Your task to perform on an android device: Open calendar and show me the third week of next month Image 0: 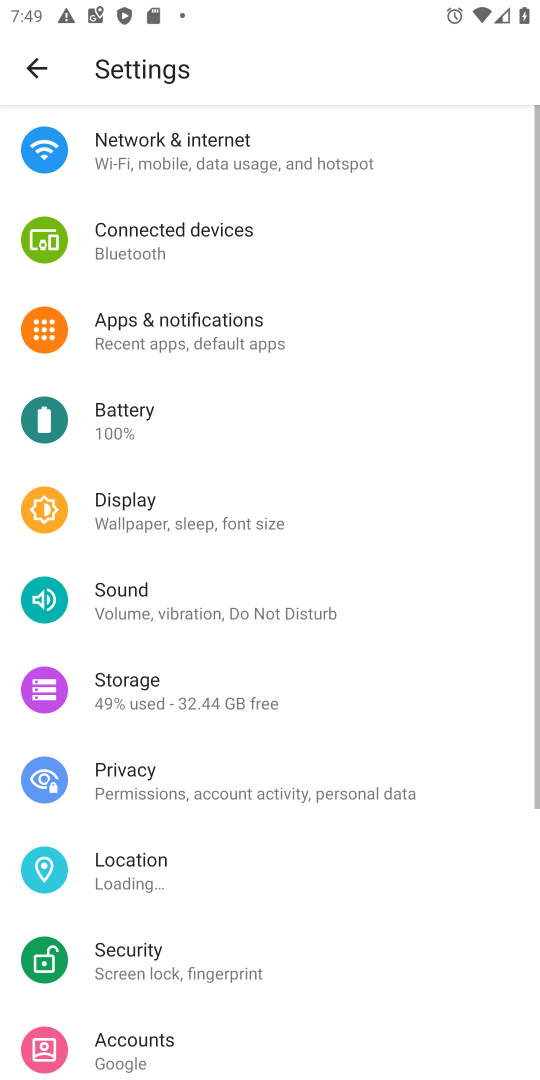
Step 0: press home button
Your task to perform on an android device: Open calendar and show me the third week of next month Image 1: 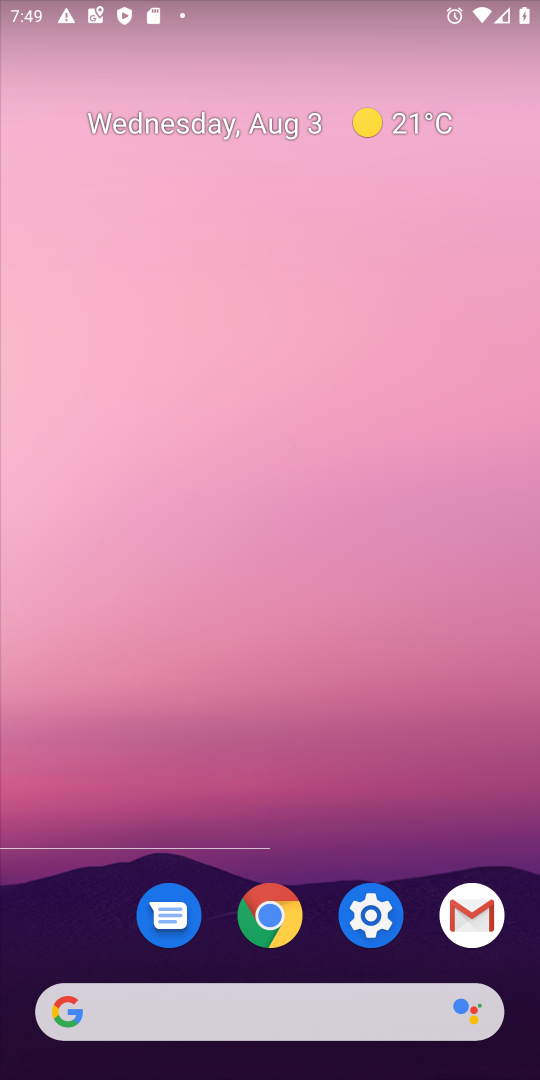
Step 1: drag from (355, 1045) to (236, 217)
Your task to perform on an android device: Open calendar and show me the third week of next month Image 2: 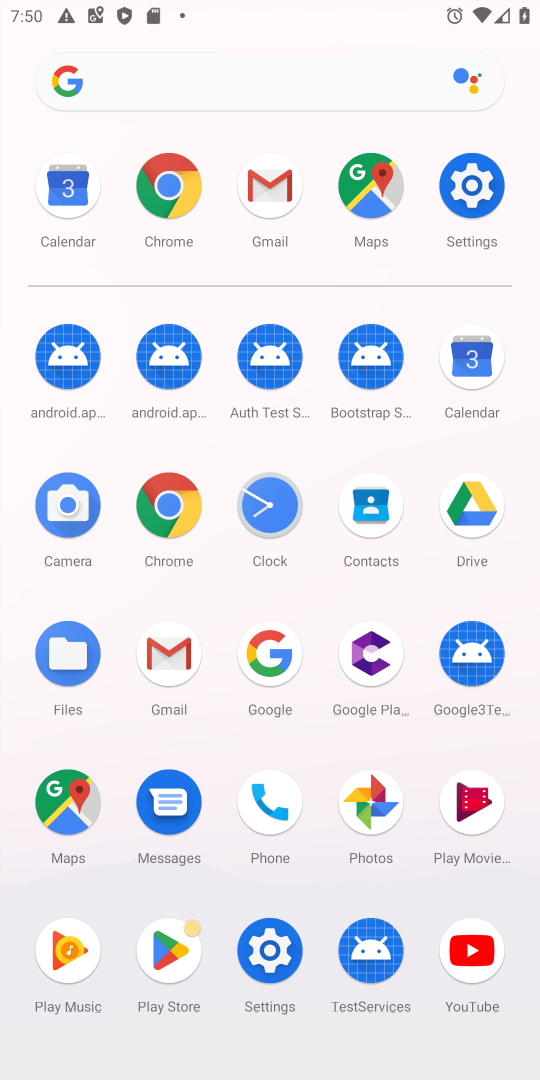
Step 2: click (461, 364)
Your task to perform on an android device: Open calendar and show me the third week of next month Image 3: 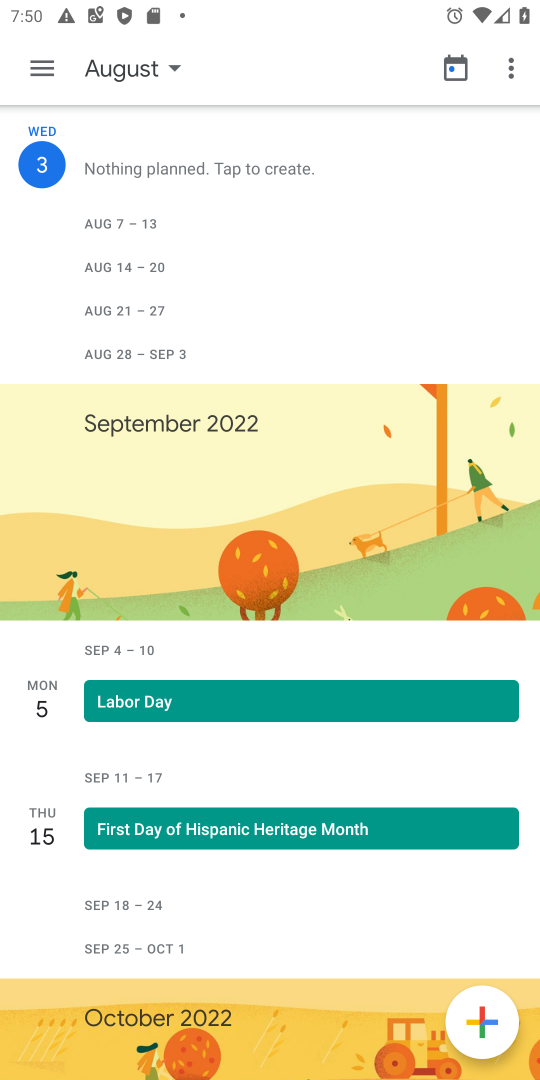
Step 3: click (28, 71)
Your task to perform on an android device: Open calendar and show me the third week of next month Image 4: 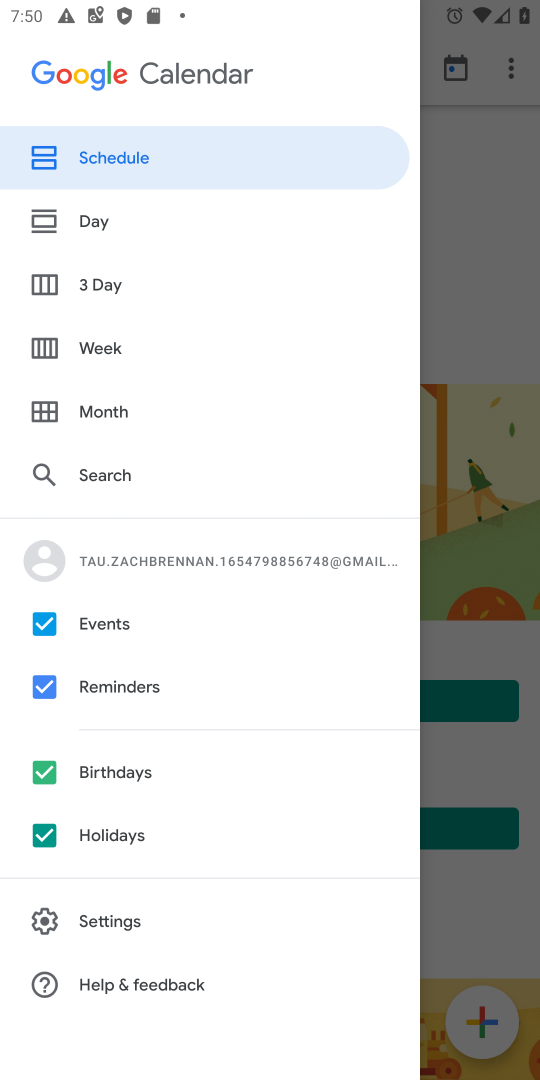
Step 4: click (119, 406)
Your task to perform on an android device: Open calendar and show me the third week of next month Image 5: 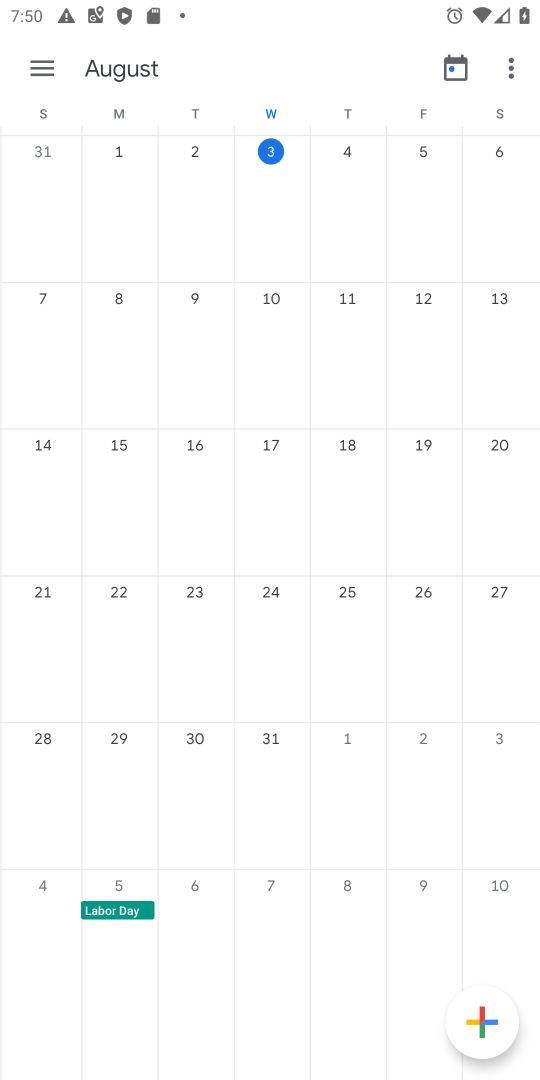
Step 5: click (125, 546)
Your task to perform on an android device: Open calendar and show me the third week of next month Image 6: 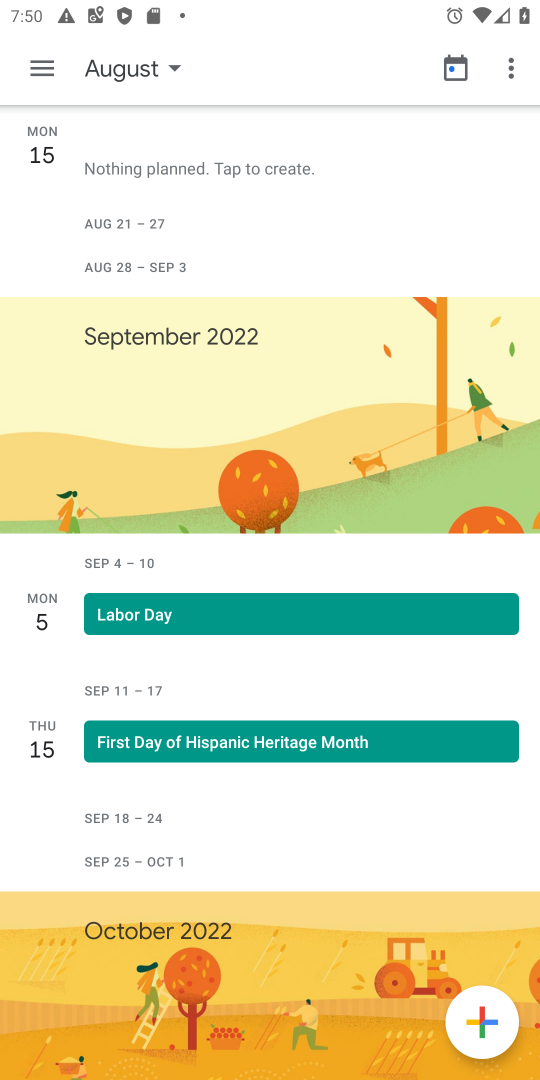
Step 6: task complete